Your task to perform on an android device: Go to wifi settings Image 0: 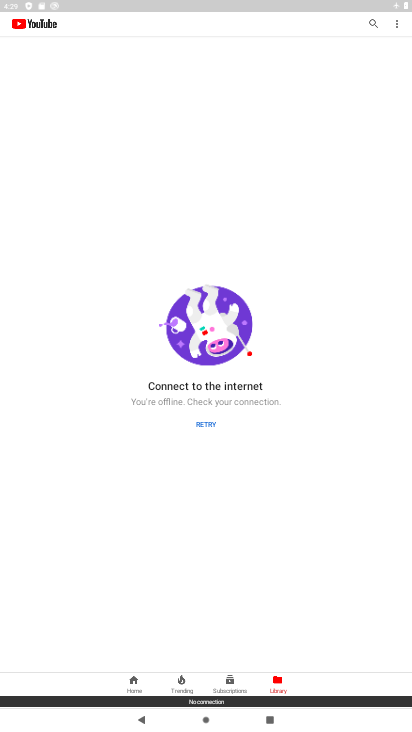
Step 0: press home button
Your task to perform on an android device: Go to wifi settings Image 1: 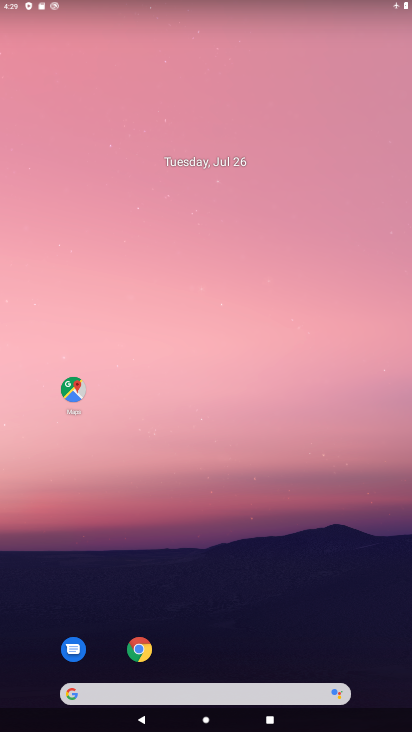
Step 1: drag from (203, 644) to (209, 219)
Your task to perform on an android device: Go to wifi settings Image 2: 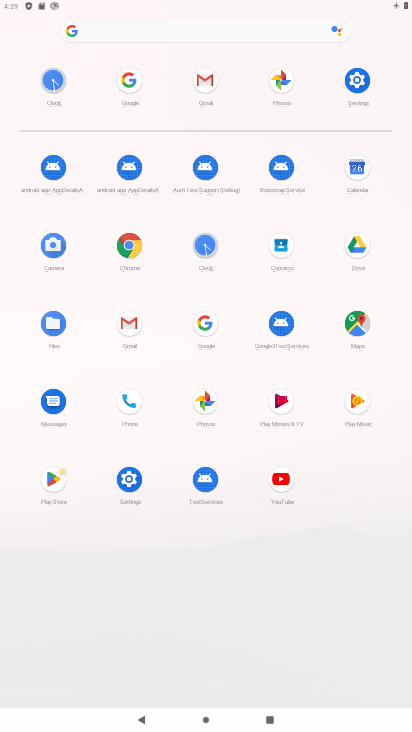
Step 2: click (365, 85)
Your task to perform on an android device: Go to wifi settings Image 3: 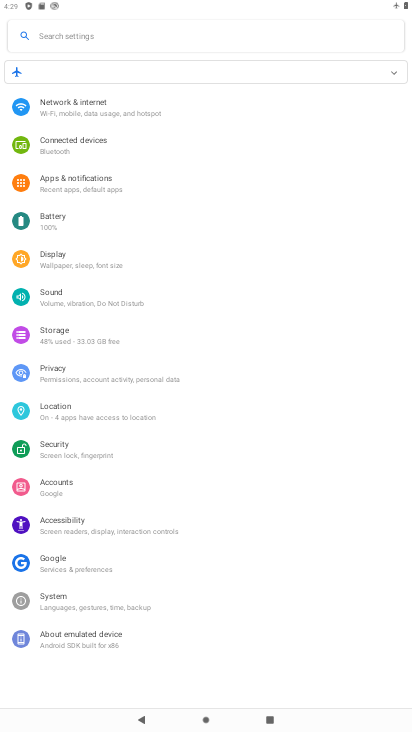
Step 3: click (110, 113)
Your task to perform on an android device: Go to wifi settings Image 4: 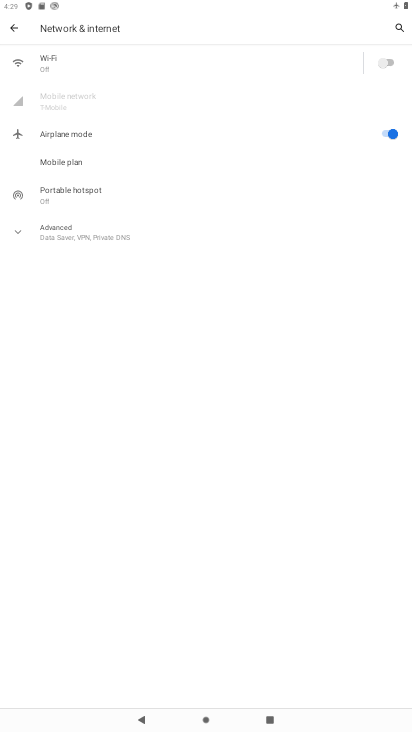
Step 4: click (70, 72)
Your task to perform on an android device: Go to wifi settings Image 5: 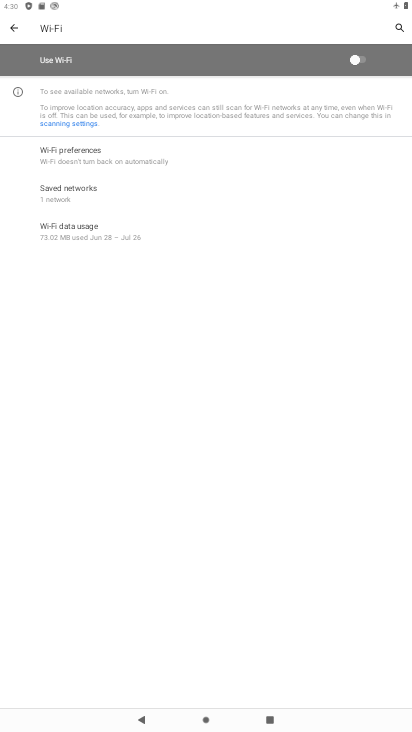
Step 5: task complete